Your task to perform on an android device: see creations saved in the google photos Image 0: 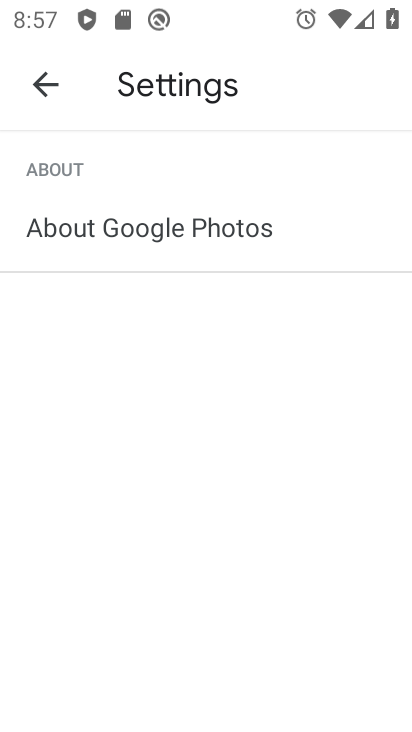
Step 0: press home button
Your task to perform on an android device: see creations saved in the google photos Image 1: 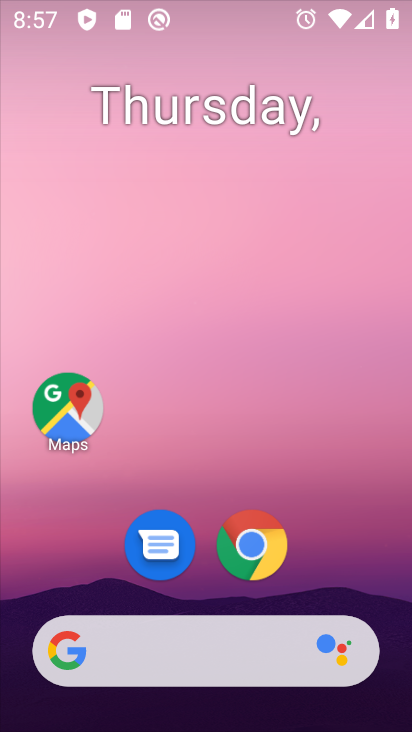
Step 1: drag from (379, 616) to (264, 93)
Your task to perform on an android device: see creations saved in the google photos Image 2: 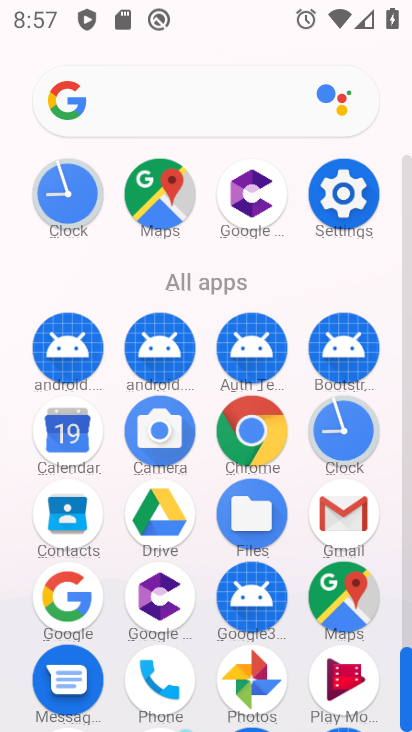
Step 2: click (250, 666)
Your task to perform on an android device: see creations saved in the google photos Image 3: 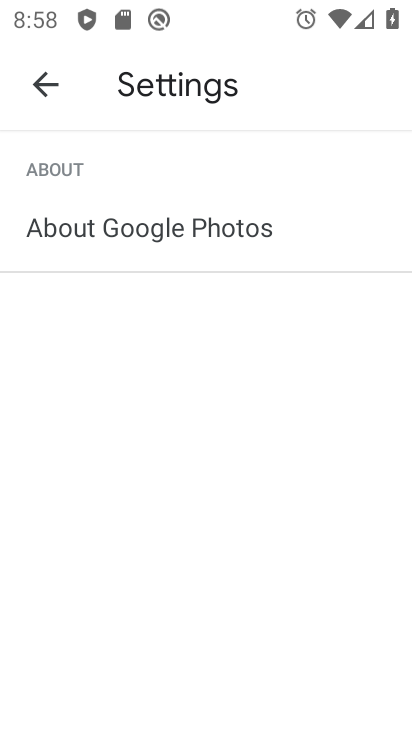
Step 3: press back button
Your task to perform on an android device: see creations saved in the google photos Image 4: 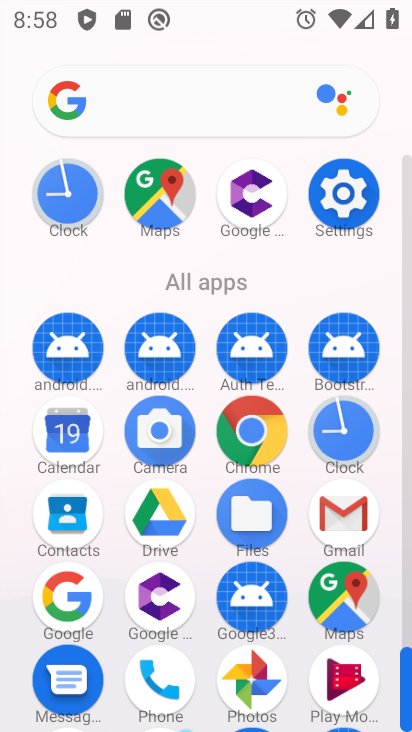
Step 4: click (269, 676)
Your task to perform on an android device: see creations saved in the google photos Image 5: 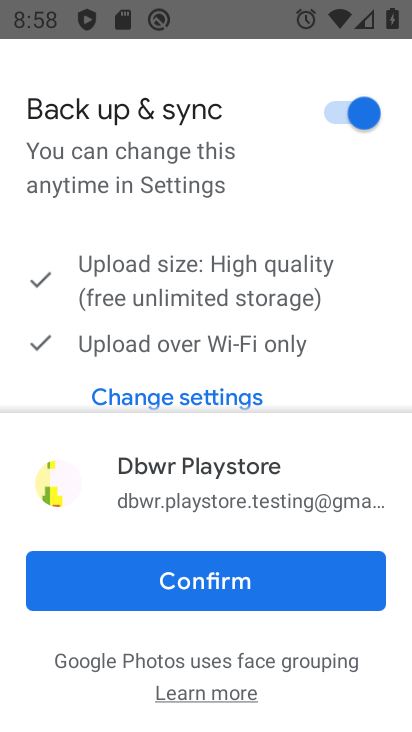
Step 5: click (212, 591)
Your task to perform on an android device: see creations saved in the google photos Image 6: 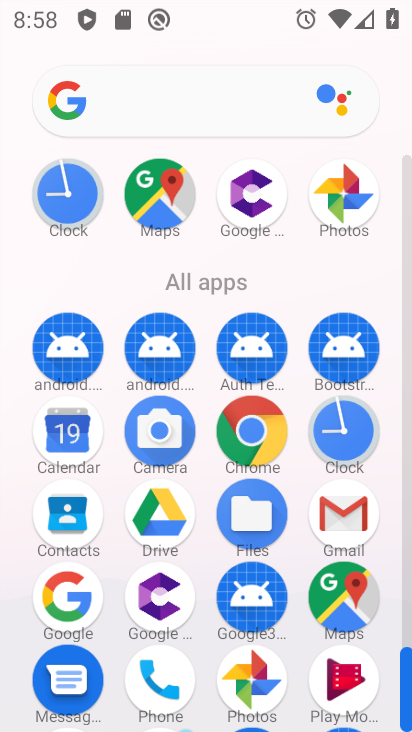
Step 6: click (269, 679)
Your task to perform on an android device: see creations saved in the google photos Image 7: 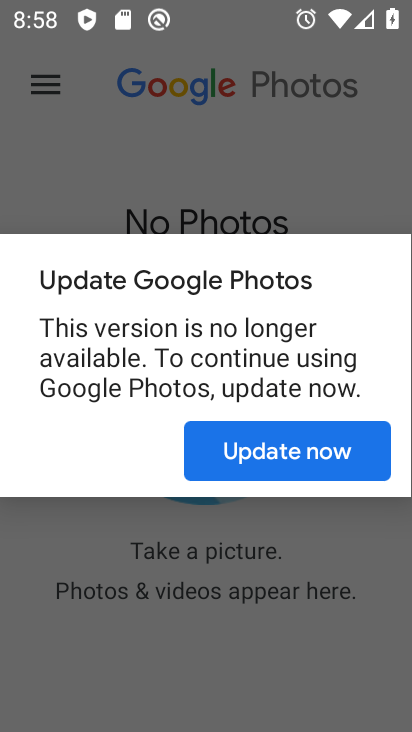
Step 7: click (294, 433)
Your task to perform on an android device: see creations saved in the google photos Image 8: 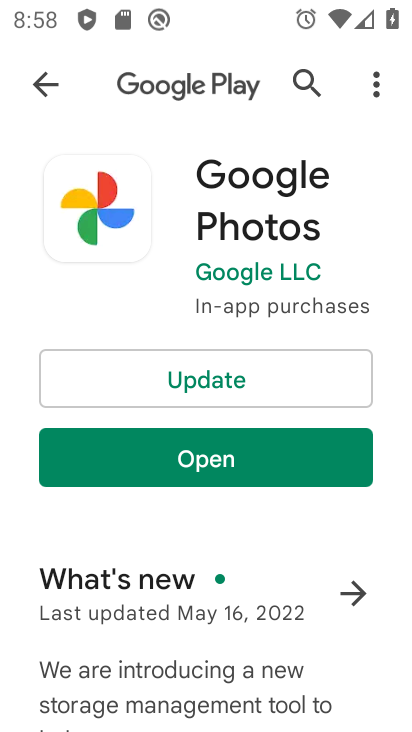
Step 8: click (240, 384)
Your task to perform on an android device: see creations saved in the google photos Image 9: 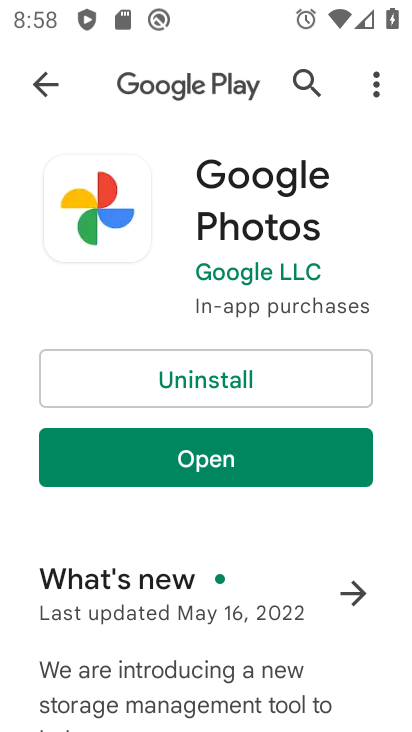
Step 9: click (222, 464)
Your task to perform on an android device: see creations saved in the google photos Image 10: 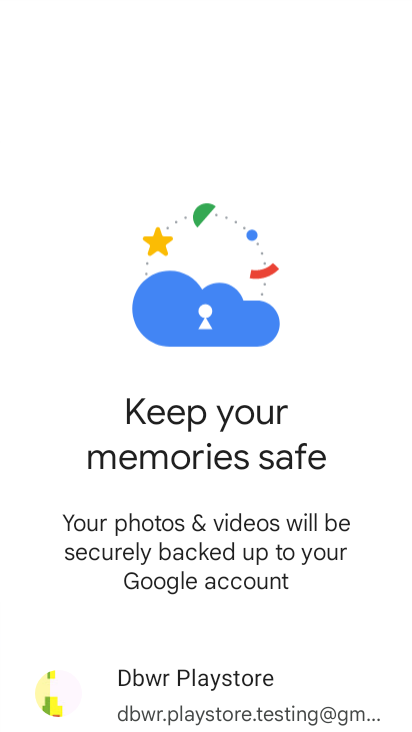
Step 10: drag from (162, 631) to (213, 277)
Your task to perform on an android device: see creations saved in the google photos Image 11: 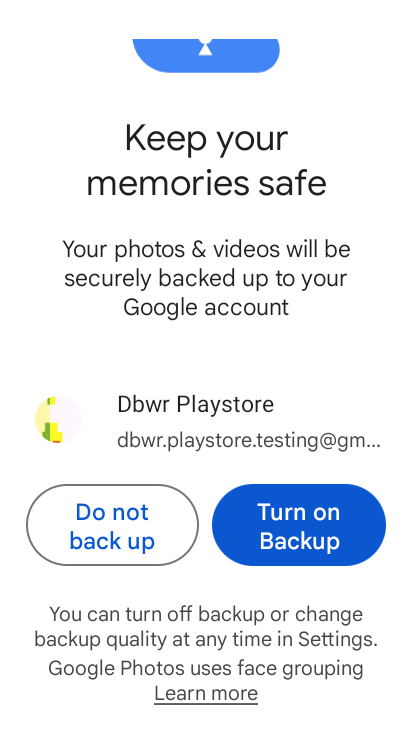
Step 11: click (313, 503)
Your task to perform on an android device: see creations saved in the google photos Image 12: 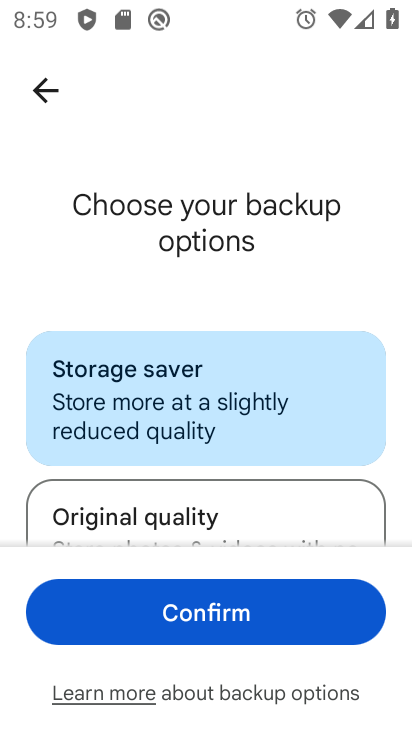
Step 12: click (231, 625)
Your task to perform on an android device: see creations saved in the google photos Image 13: 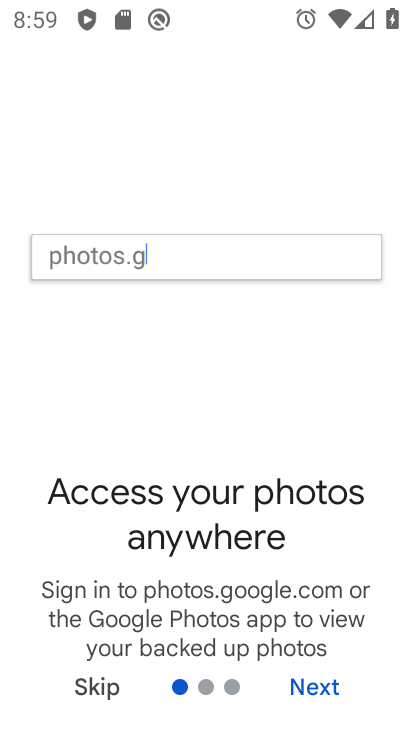
Step 13: click (341, 694)
Your task to perform on an android device: see creations saved in the google photos Image 14: 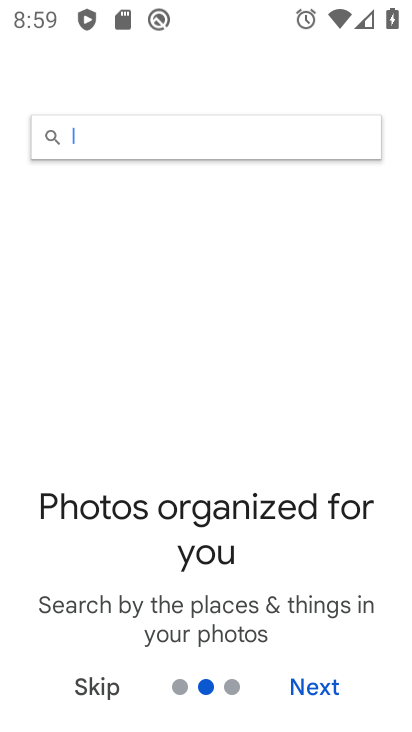
Step 14: click (335, 694)
Your task to perform on an android device: see creations saved in the google photos Image 15: 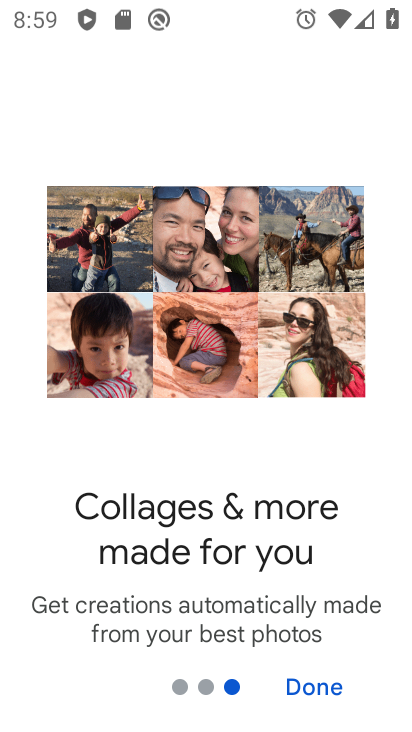
Step 15: click (335, 694)
Your task to perform on an android device: see creations saved in the google photos Image 16: 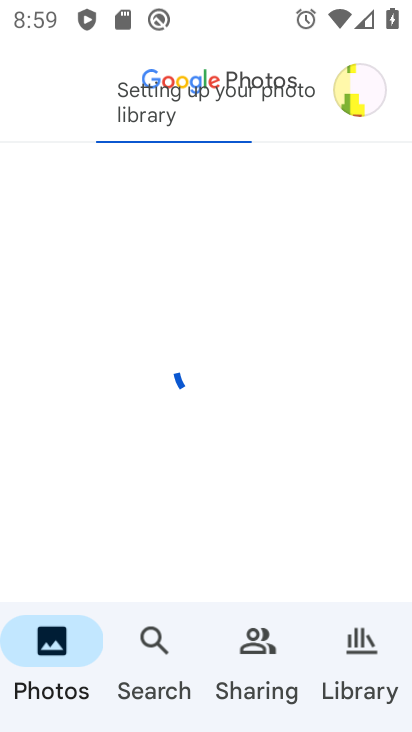
Step 16: click (155, 647)
Your task to perform on an android device: see creations saved in the google photos Image 17: 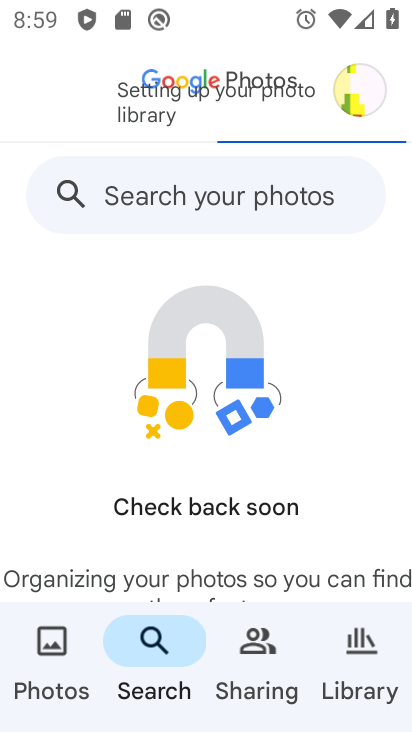
Step 17: drag from (194, 544) to (257, 50)
Your task to perform on an android device: see creations saved in the google photos Image 18: 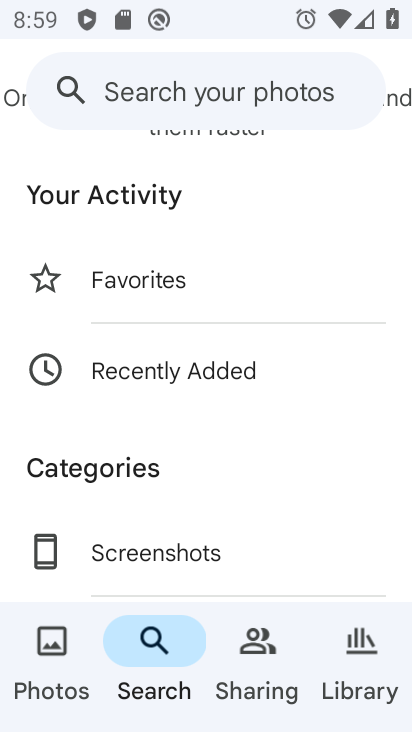
Step 18: drag from (177, 516) to (211, 179)
Your task to perform on an android device: see creations saved in the google photos Image 19: 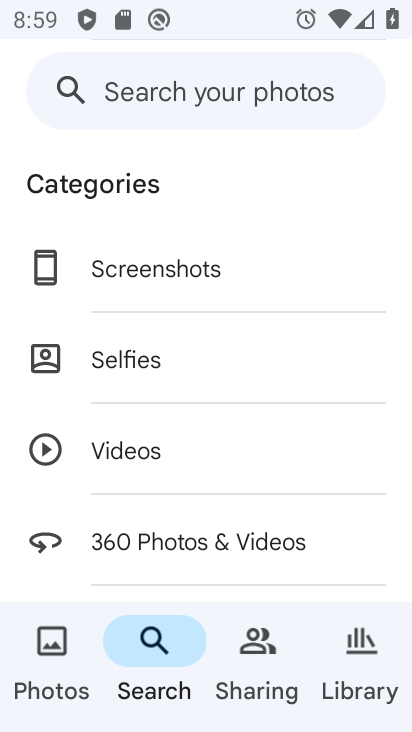
Step 19: drag from (184, 504) to (229, 145)
Your task to perform on an android device: see creations saved in the google photos Image 20: 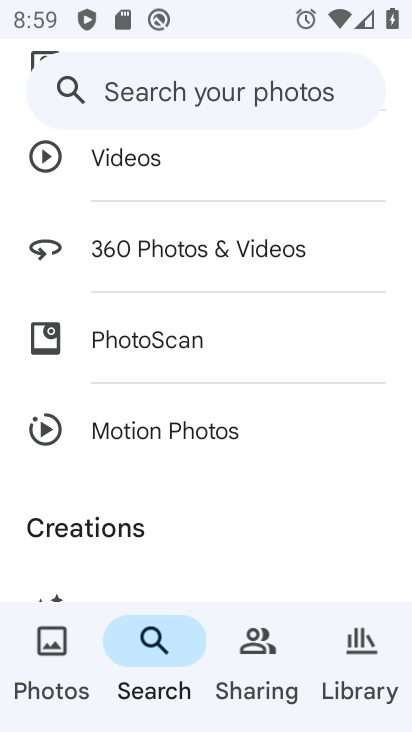
Step 20: drag from (138, 525) to (193, 174)
Your task to perform on an android device: see creations saved in the google photos Image 21: 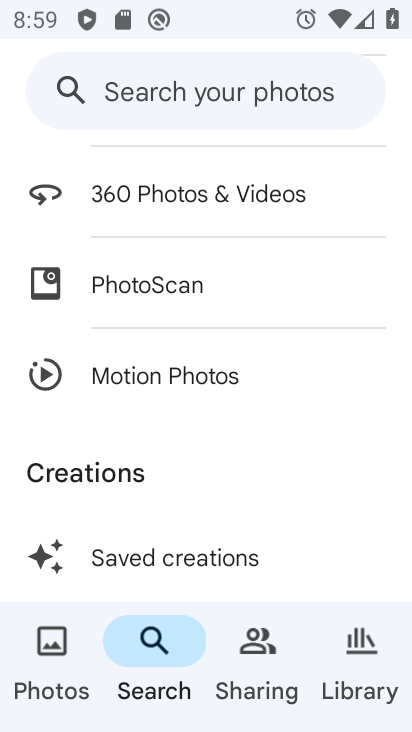
Step 21: click (128, 546)
Your task to perform on an android device: see creations saved in the google photos Image 22: 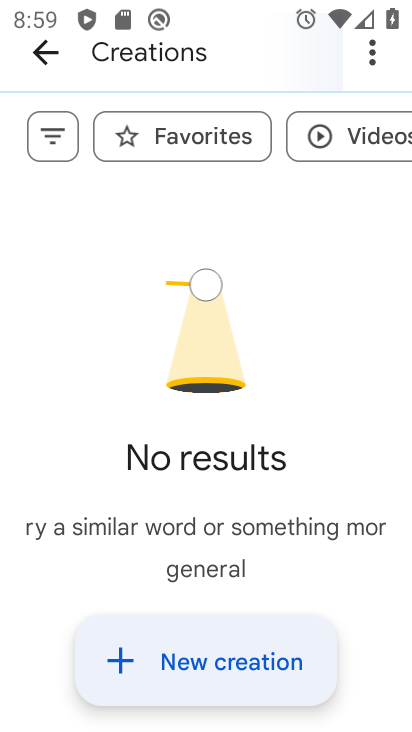
Step 22: task complete